Your task to perform on an android device: empty trash in the gmail app Image 0: 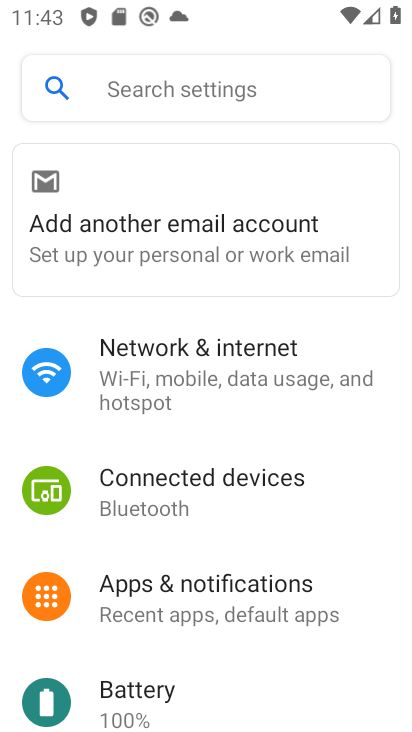
Step 0: press home button
Your task to perform on an android device: empty trash in the gmail app Image 1: 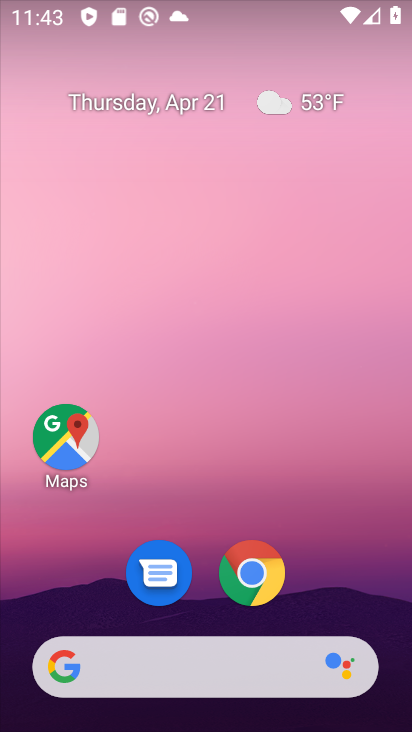
Step 1: drag from (173, 674) to (334, 222)
Your task to perform on an android device: empty trash in the gmail app Image 2: 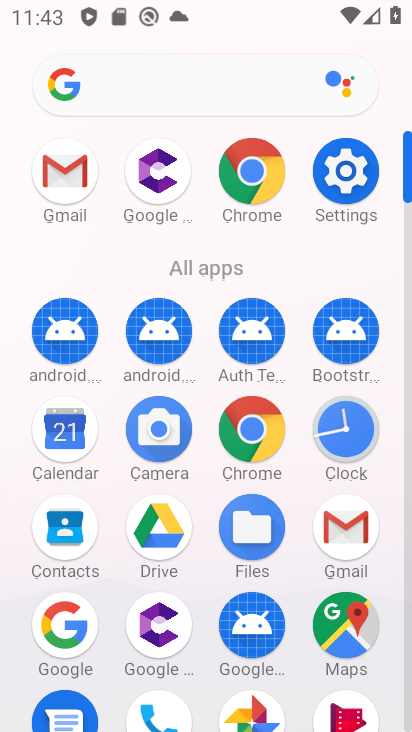
Step 2: click (68, 184)
Your task to perform on an android device: empty trash in the gmail app Image 3: 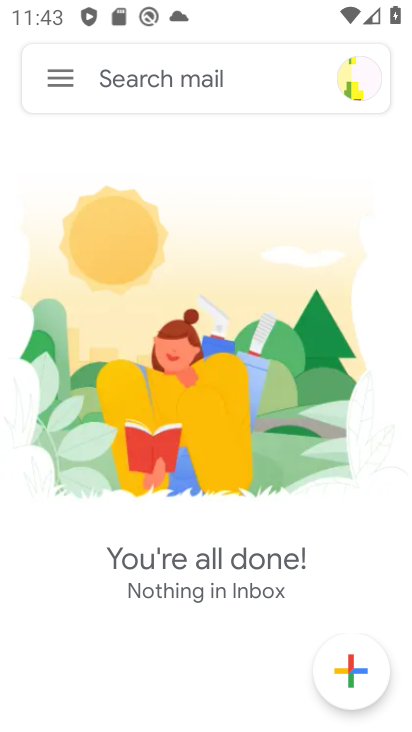
Step 3: click (65, 87)
Your task to perform on an android device: empty trash in the gmail app Image 4: 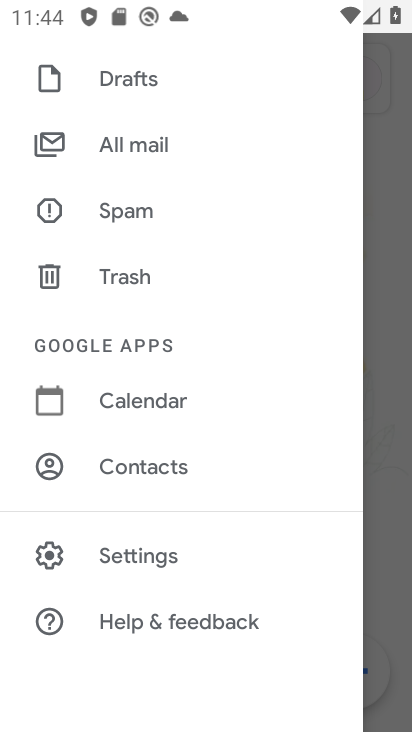
Step 4: click (121, 279)
Your task to perform on an android device: empty trash in the gmail app Image 5: 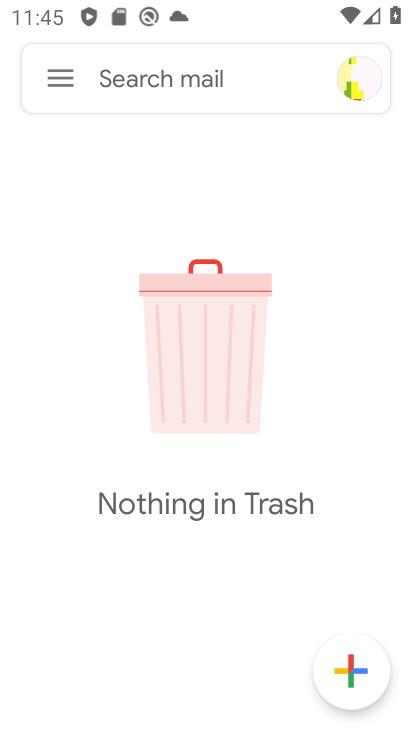
Step 5: task complete